Your task to perform on an android device: set the stopwatch Image 0: 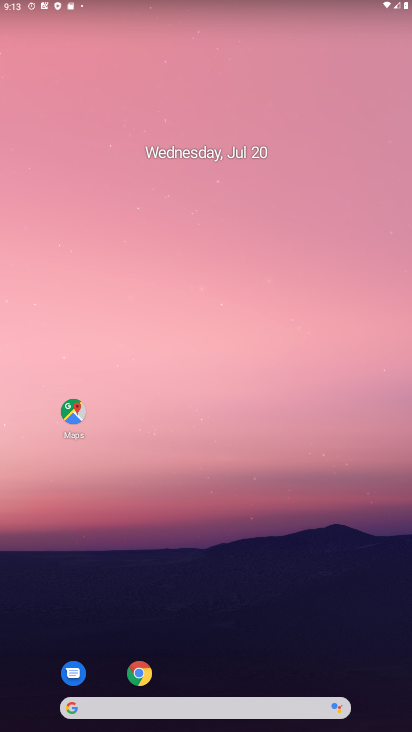
Step 0: drag from (361, 608) to (260, 24)
Your task to perform on an android device: set the stopwatch Image 1: 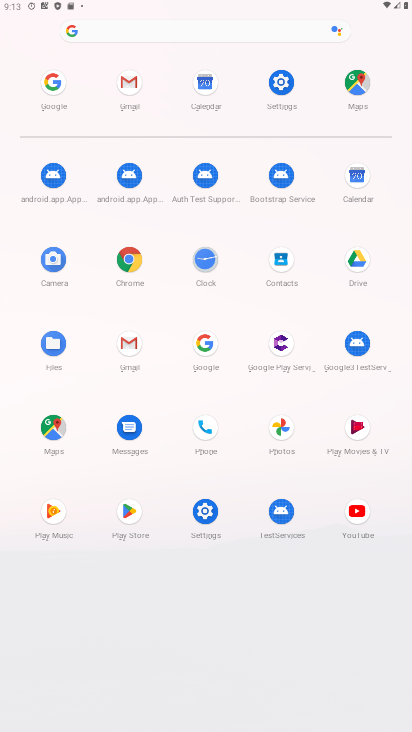
Step 1: click (204, 251)
Your task to perform on an android device: set the stopwatch Image 2: 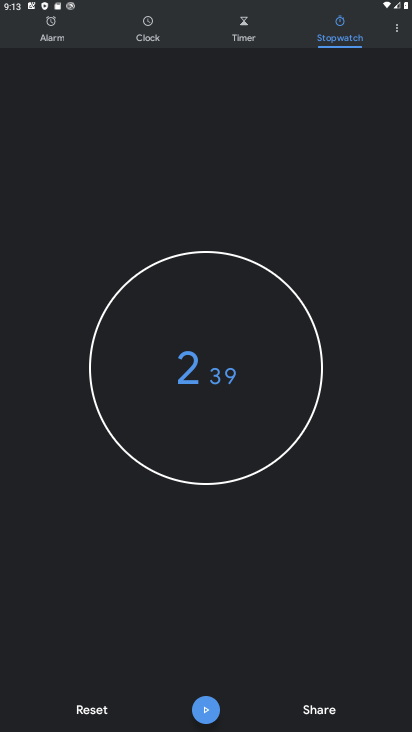
Step 2: click (195, 704)
Your task to perform on an android device: set the stopwatch Image 3: 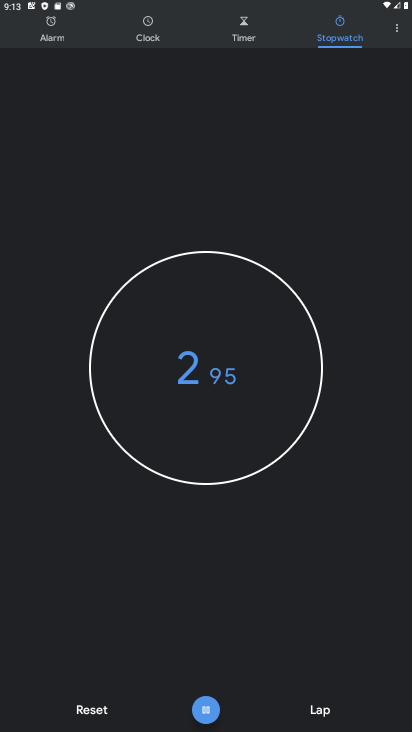
Step 3: click (195, 704)
Your task to perform on an android device: set the stopwatch Image 4: 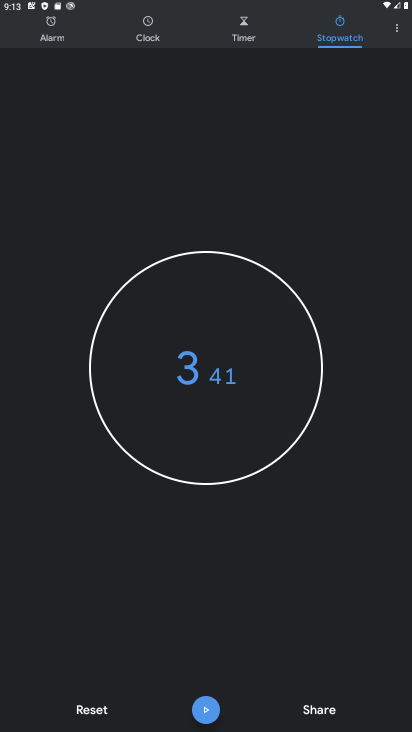
Step 4: task complete